Your task to perform on an android device: Go to CNN.com Image 0: 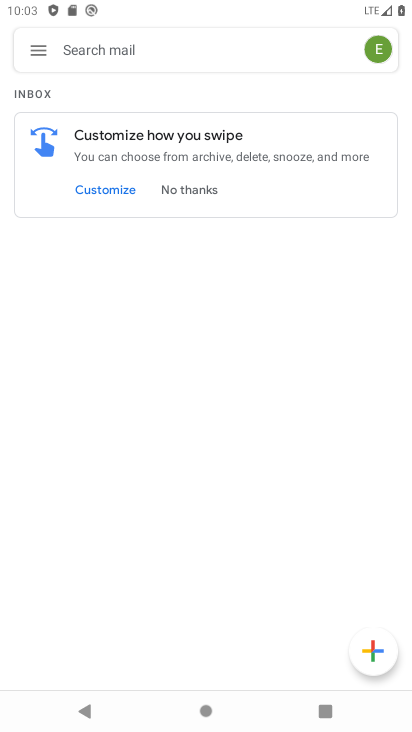
Step 0: press home button
Your task to perform on an android device: Go to CNN.com Image 1: 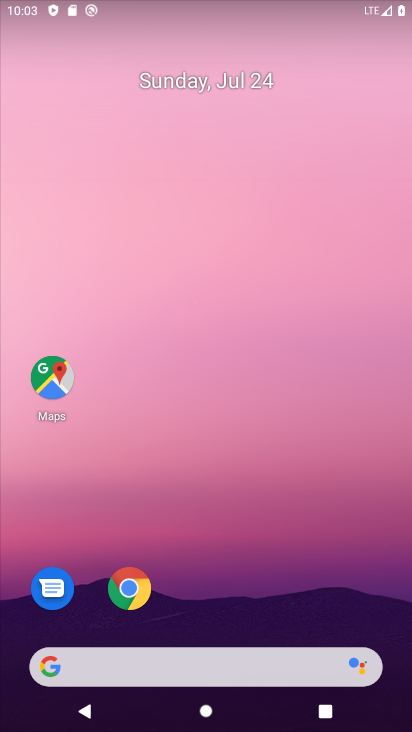
Step 1: click (201, 667)
Your task to perform on an android device: Go to CNN.com Image 2: 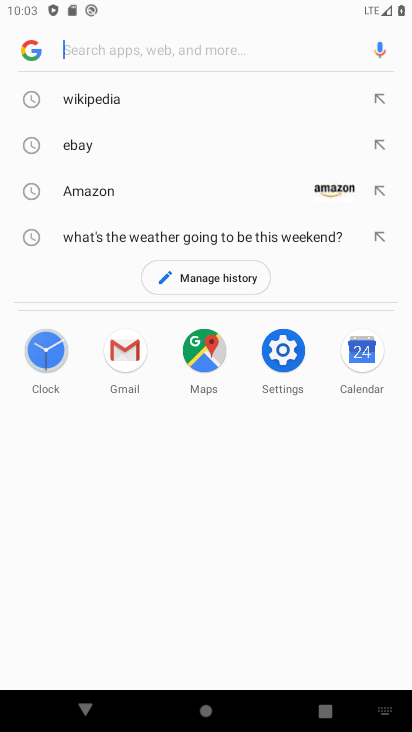
Step 2: type "cnn.com"
Your task to perform on an android device: Go to CNN.com Image 3: 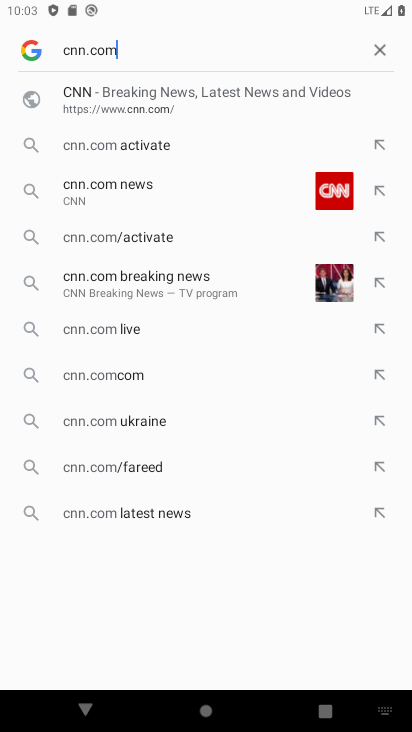
Step 3: click (202, 92)
Your task to perform on an android device: Go to CNN.com Image 4: 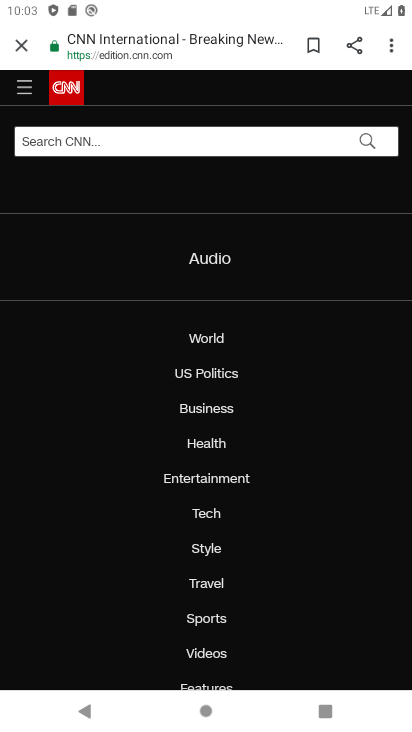
Step 4: task complete